Your task to perform on an android device: set default search engine in the chrome app Image 0: 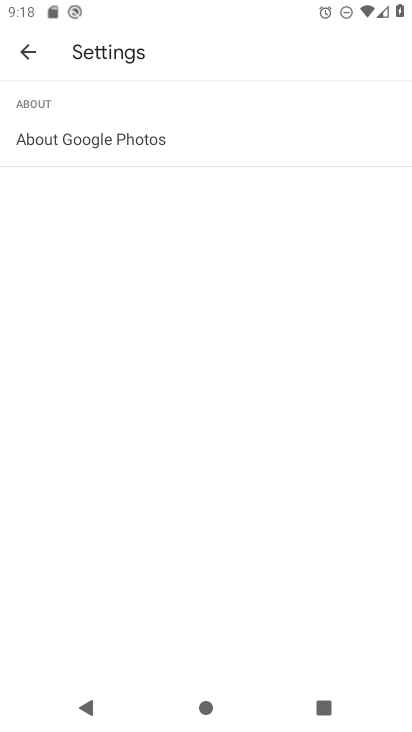
Step 0: press home button
Your task to perform on an android device: set default search engine in the chrome app Image 1: 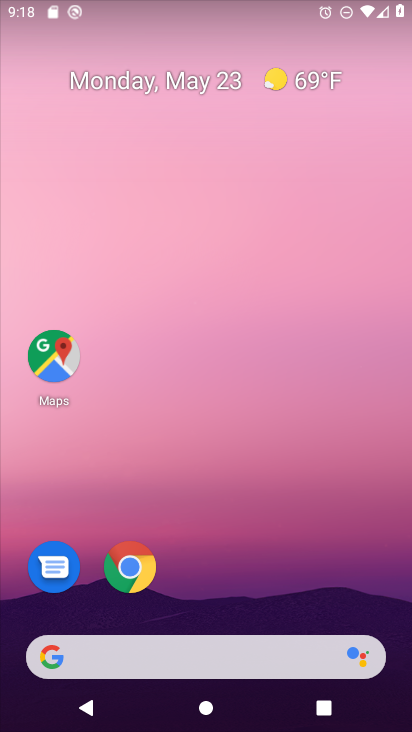
Step 1: drag from (248, 596) to (274, 165)
Your task to perform on an android device: set default search engine in the chrome app Image 2: 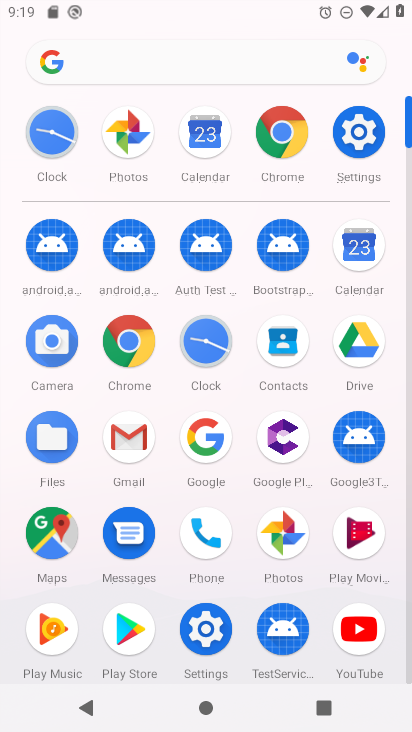
Step 2: click (284, 138)
Your task to perform on an android device: set default search engine in the chrome app Image 3: 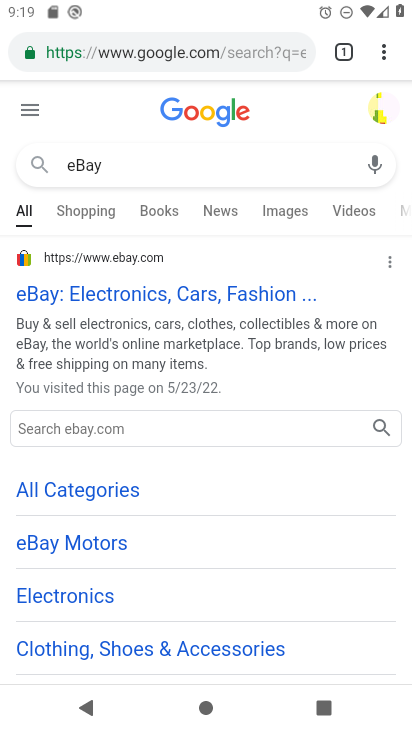
Step 3: click (388, 55)
Your task to perform on an android device: set default search engine in the chrome app Image 4: 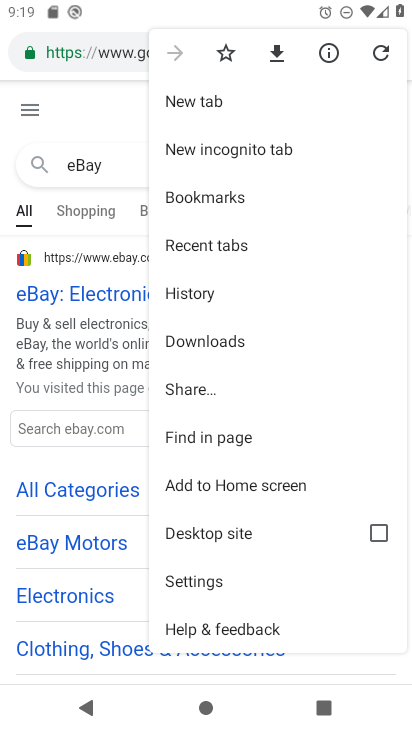
Step 4: click (201, 584)
Your task to perform on an android device: set default search engine in the chrome app Image 5: 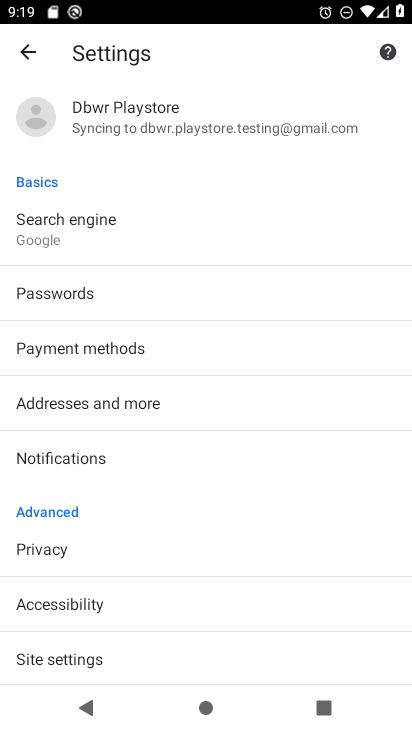
Step 5: click (86, 221)
Your task to perform on an android device: set default search engine in the chrome app Image 6: 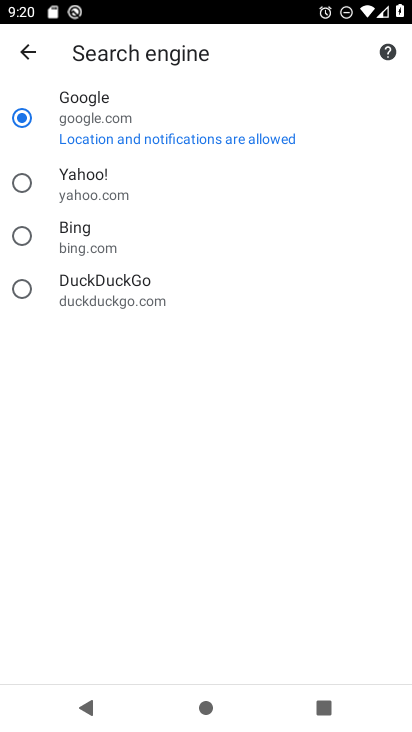
Step 6: task complete